Your task to perform on an android device: Open Google Chrome and click the shortcut for Amazon.com Image 0: 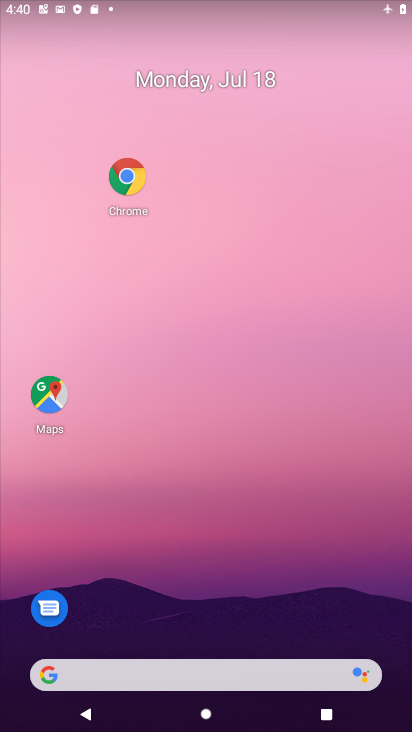
Step 0: drag from (138, 619) to (339, 5)
Your task to perform on an android device: Open Google Chrome and click the shortcut for Amazon.com Image 1: 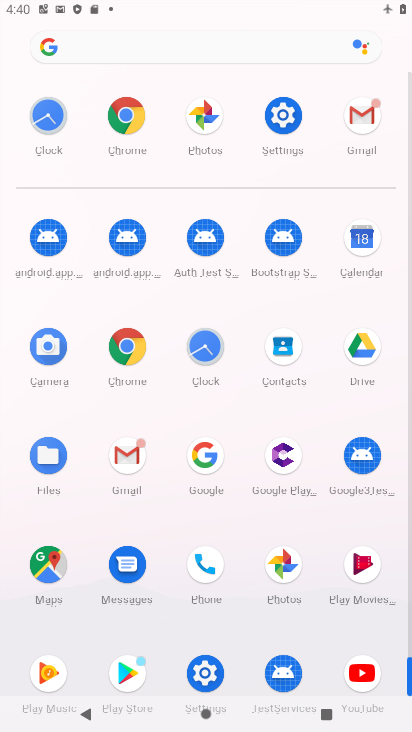
Step 1: click (121, 136)
Your task to perform on an android device: Open Google Chrome and click the shortcut for Amazon.com Image 2: 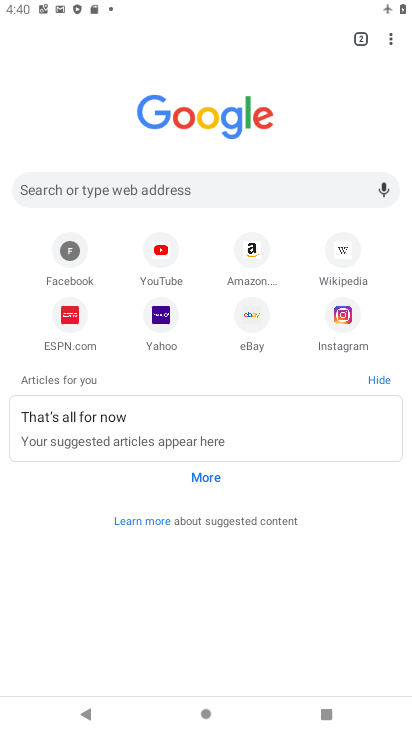
Step 2: click (246, 271)
Your task to perform on an android device: Open Google Chrome and click the shortcut for Amazon.com Image 3: 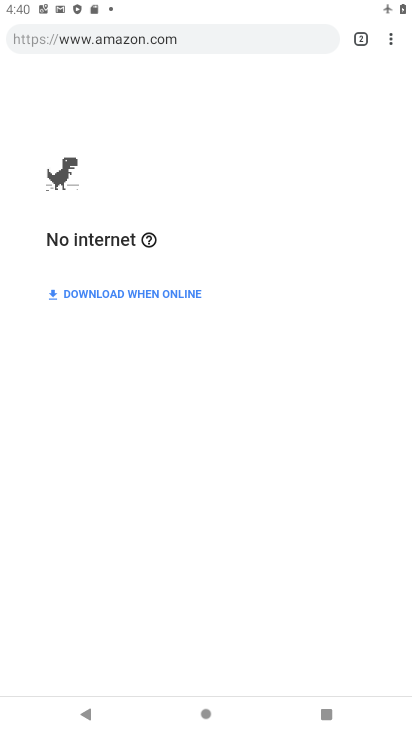
Step 3: drag from (356, 34) to (261, 264)
Your task to perform on an android device: Open Google Chrome and click the shortcut for Amazon.com Image 4: 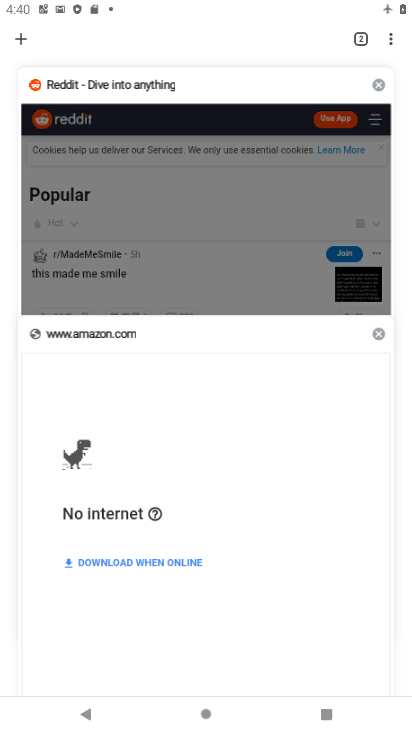
Step 4: click (27, 50)
Your task to perform on an android device: Open Google Chrome and click the shortcut for Amazon.com Image 5: 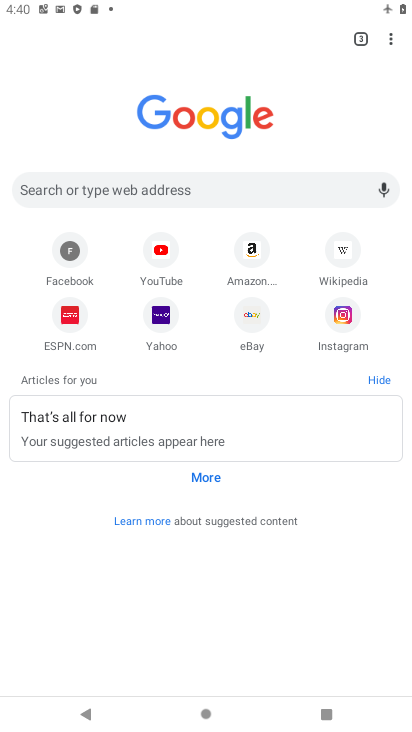
Step 5: click (258, 250)
Your task to perform on an android device: Open Google Chrome and click the shortcut for Amazon.com Image 6: 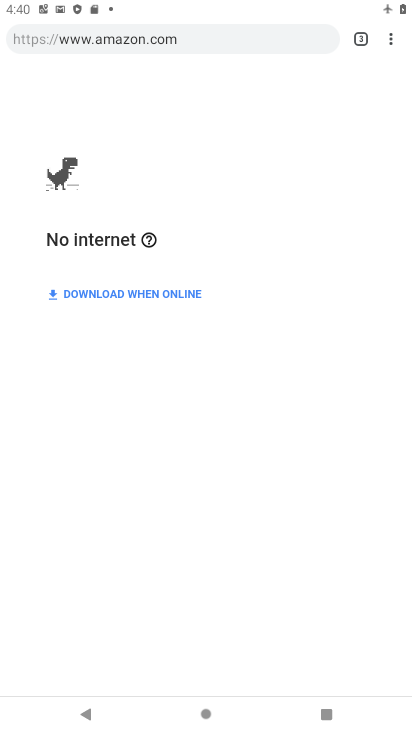
Step 6: task complete